Your task to perform on an android device: Open Yahoo.com Image 0: 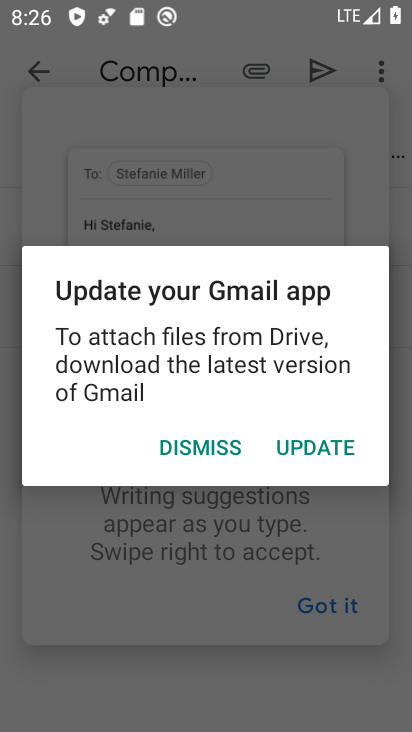
Step 0: press home button
Your task to perform on an android device: Open Yahoo.com Image 1: 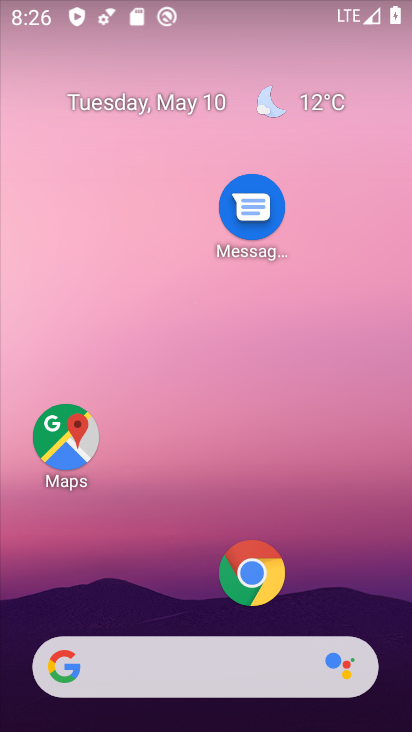
Step 1: click (248, 577)
Your task to perform on an android device: Open Yahoo.com Image 2: 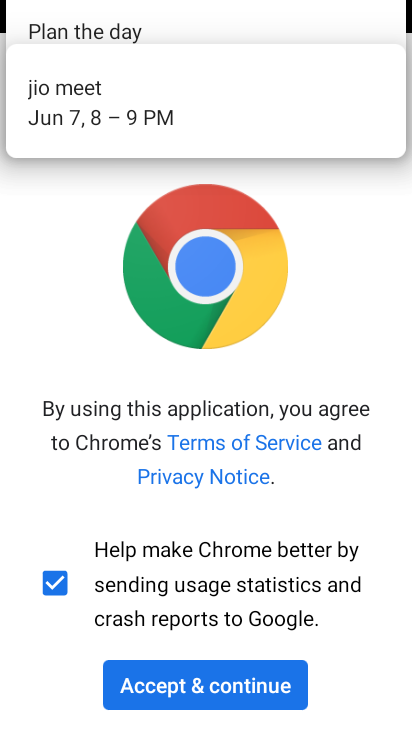
Step 2: click (211, 683)
Your task to perform on an android device: Open Yahoo.com Image 3: 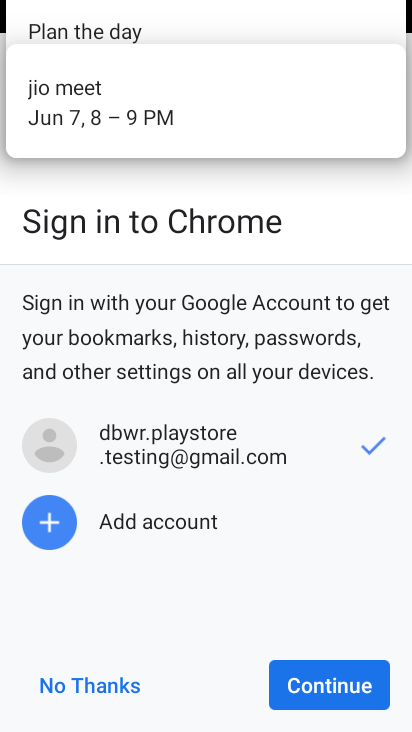
Step 3: click (326, 682)
Your task to perform on an android device: Open Yahoo.com Image 4: 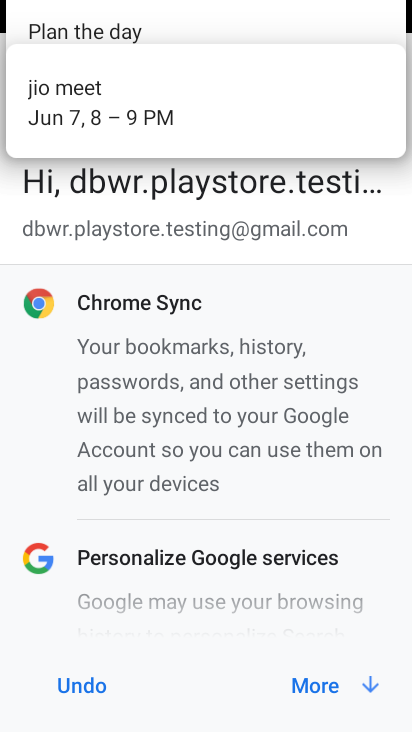
Step 4: click (324, 683)
Your task to perform on an android device: Open Yahoo.com Image 5: 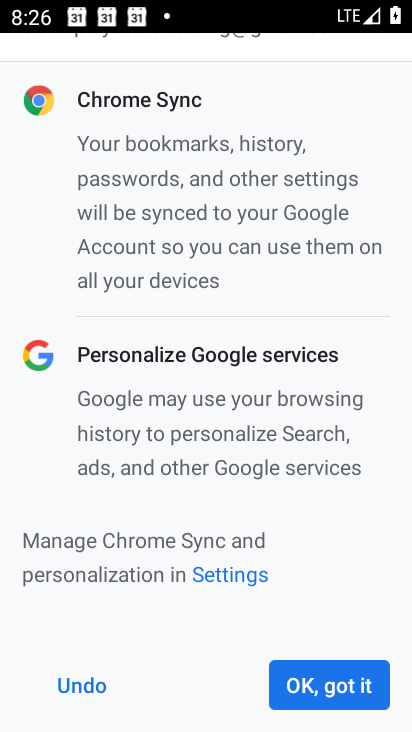
Step 5: click (324, 683)
Your task to perform on an android device: Open Yahoo.com Image 6: 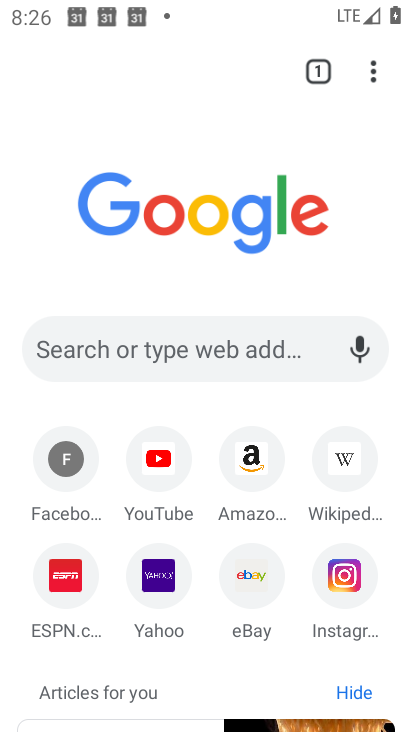
Step 6: click (157, 576)
Your task to perform on an android device: Open Yahoo.com Image 7: 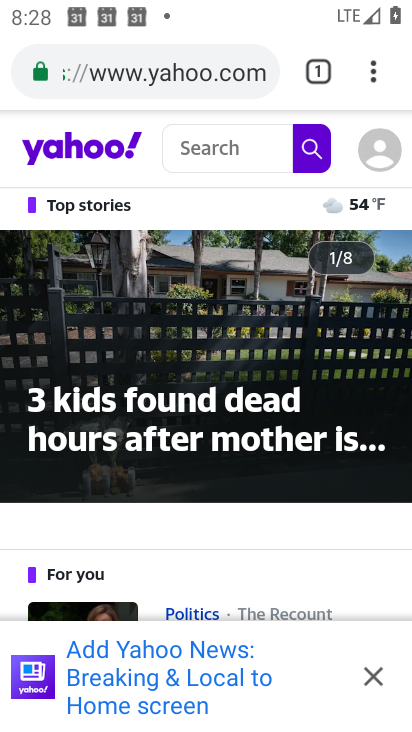
Step 7: task complete